Your task to perform on an android device: allow notifications from all sites in the chrome app Image 0: 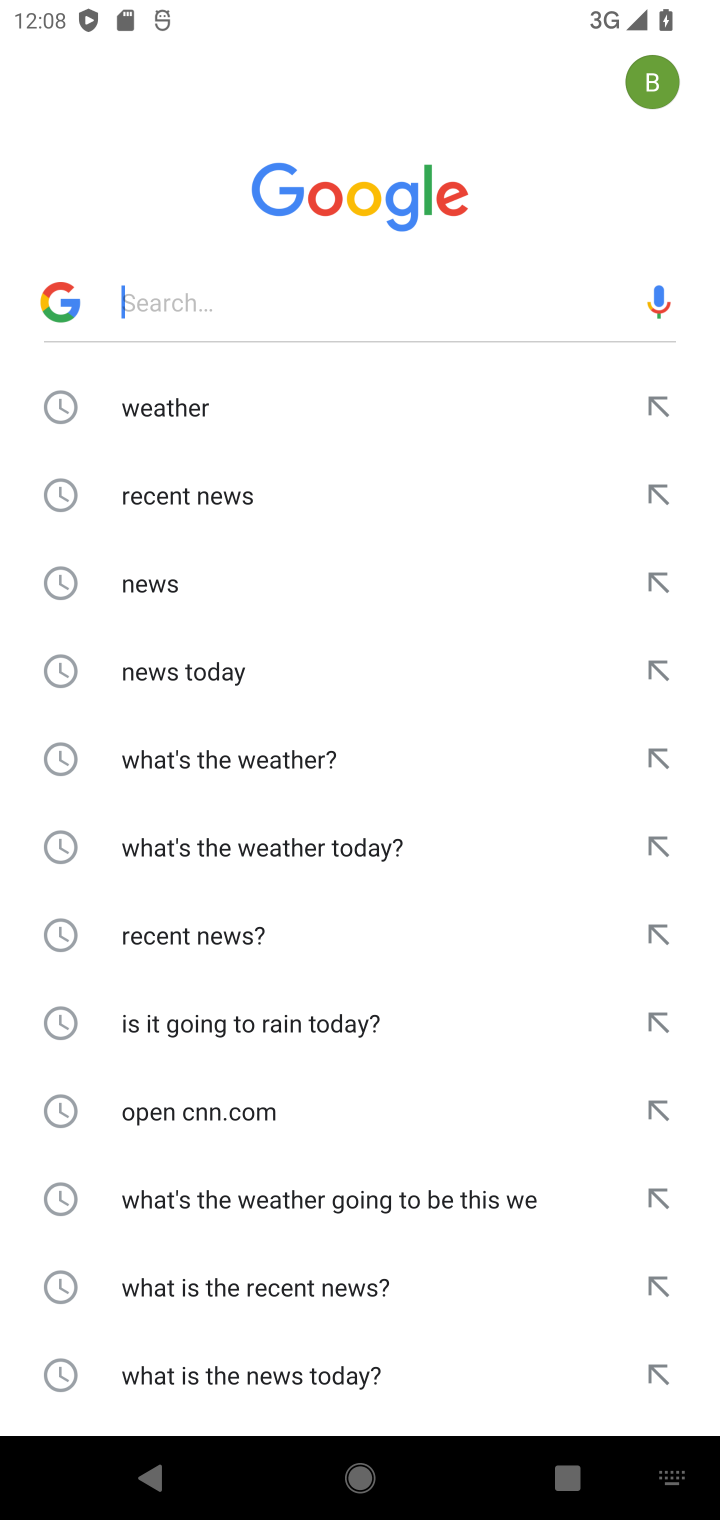
Step 0: press home button
Your task to perform on an android device: allow notifications from all sites in the chrome app Image 1: 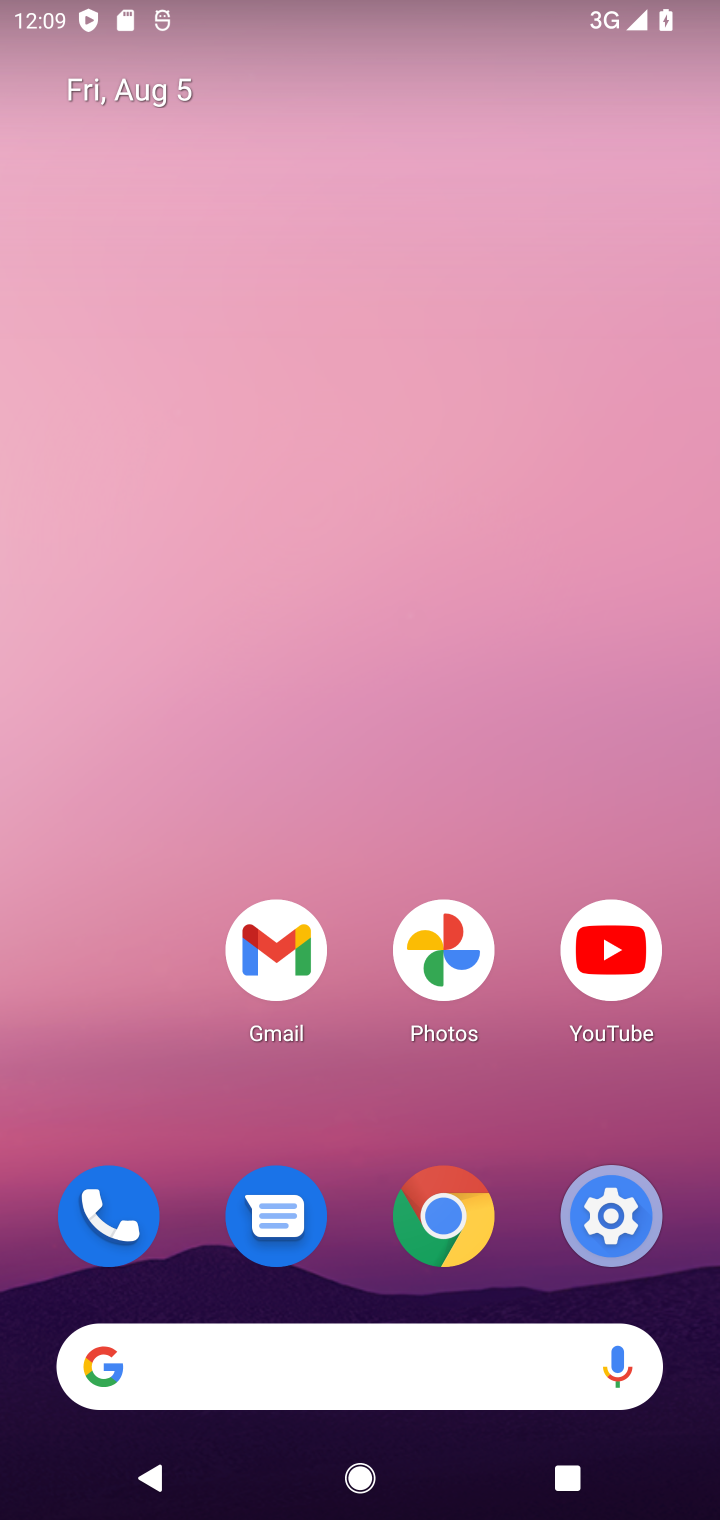
Step 1: drag from (460, 1332) to (448, 120)
Your task to perform on an android device: allow notifications from all sites in the chrome app Image 2: 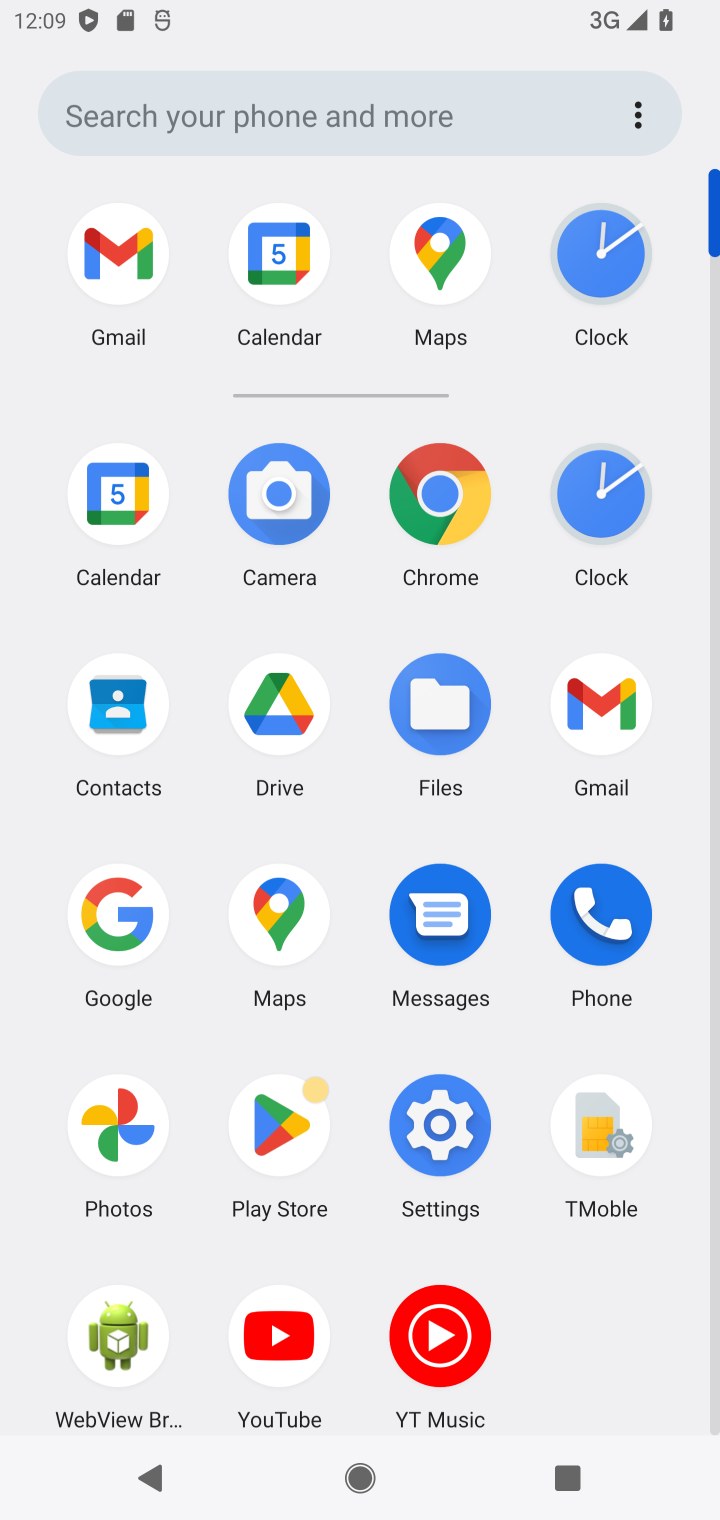
Step 2: click (458, 492)
Your task to perform on an android device: allow notifications from all sites in the chrome app Image 3: 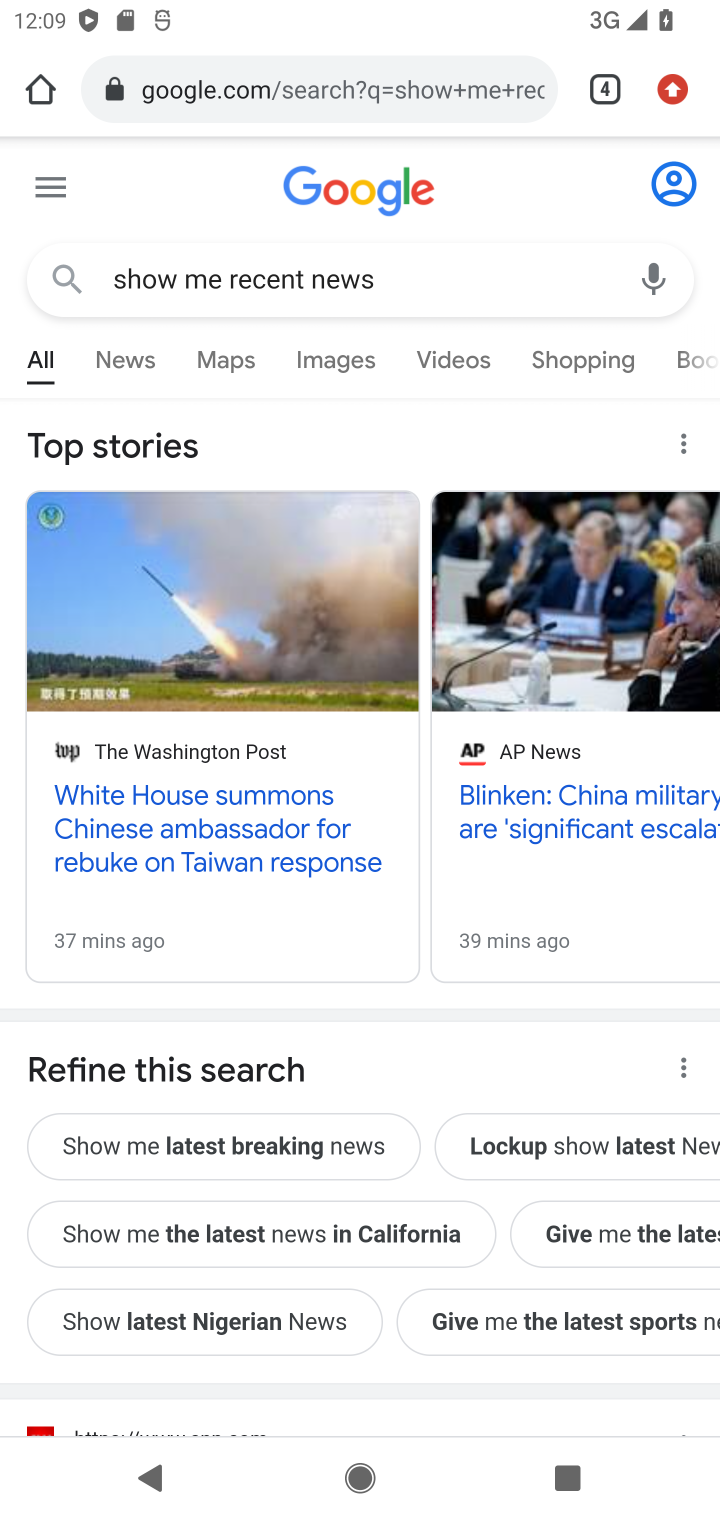
Step 3: click (670, 87)
Your task to perform on an android device: allow notifications from all sites in the chrome app Image 4: 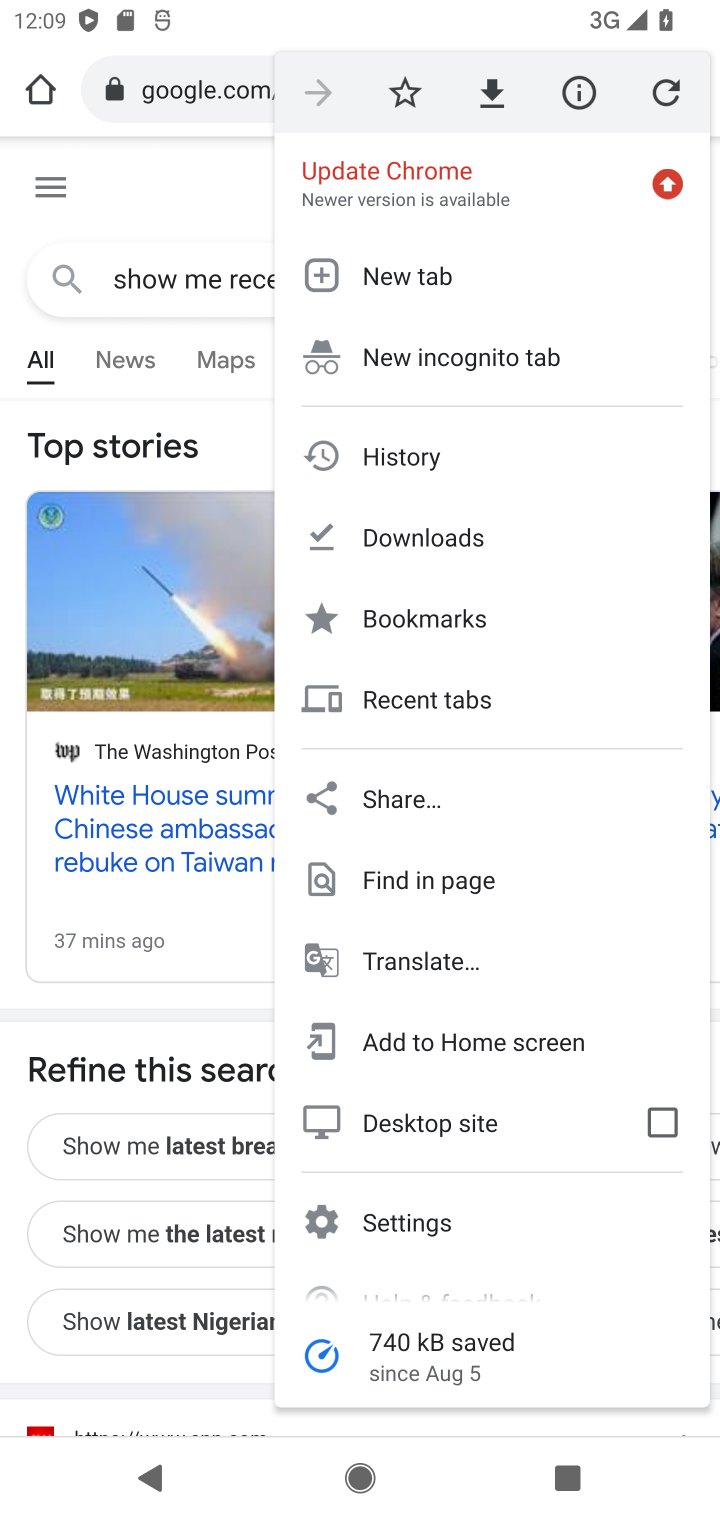
Step 4: click (409, 1218)
Your task to perform on an android device: allow notifications from all sites in the chrome app Image 5: 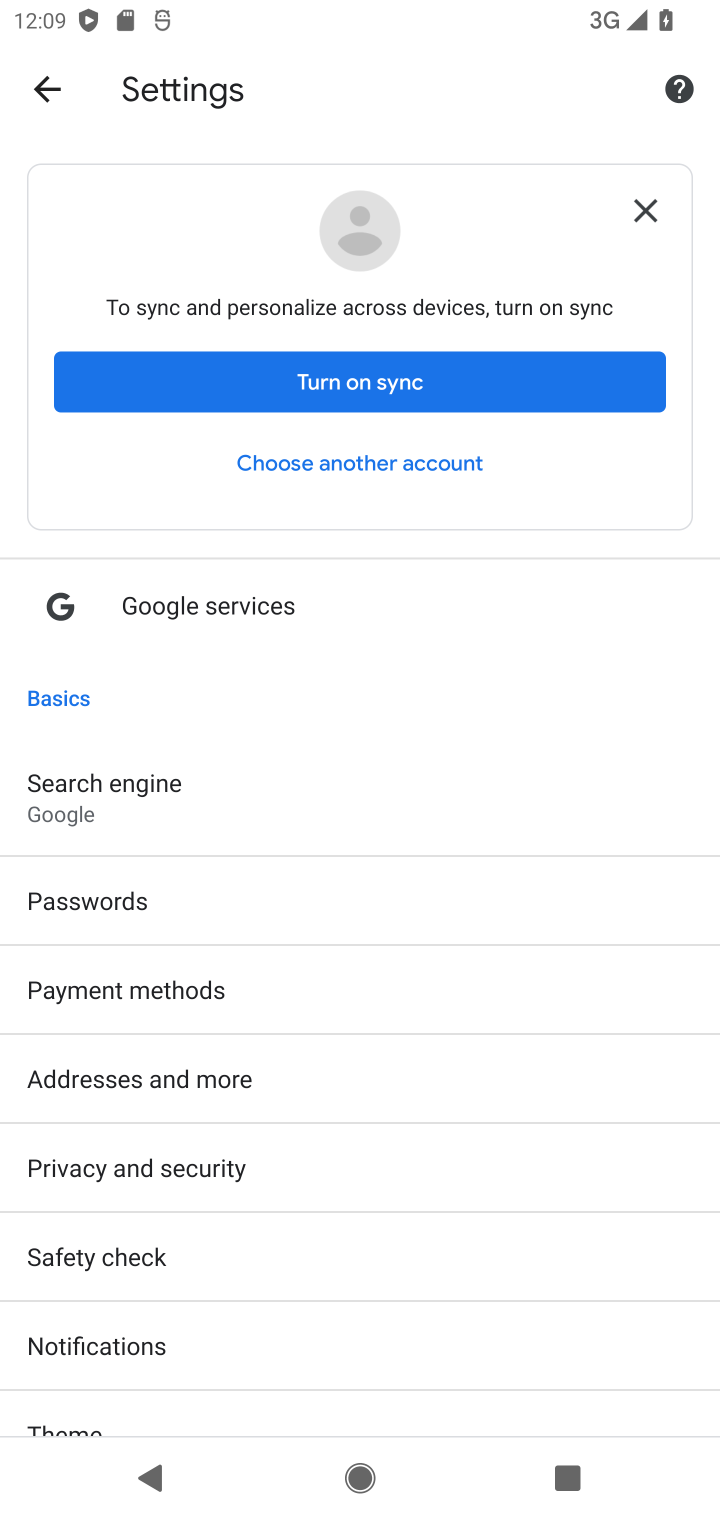
Step 5: click (217, 1338)
Your task to perform on an android device: allow notifications from all sites in the chrome app Image 6: 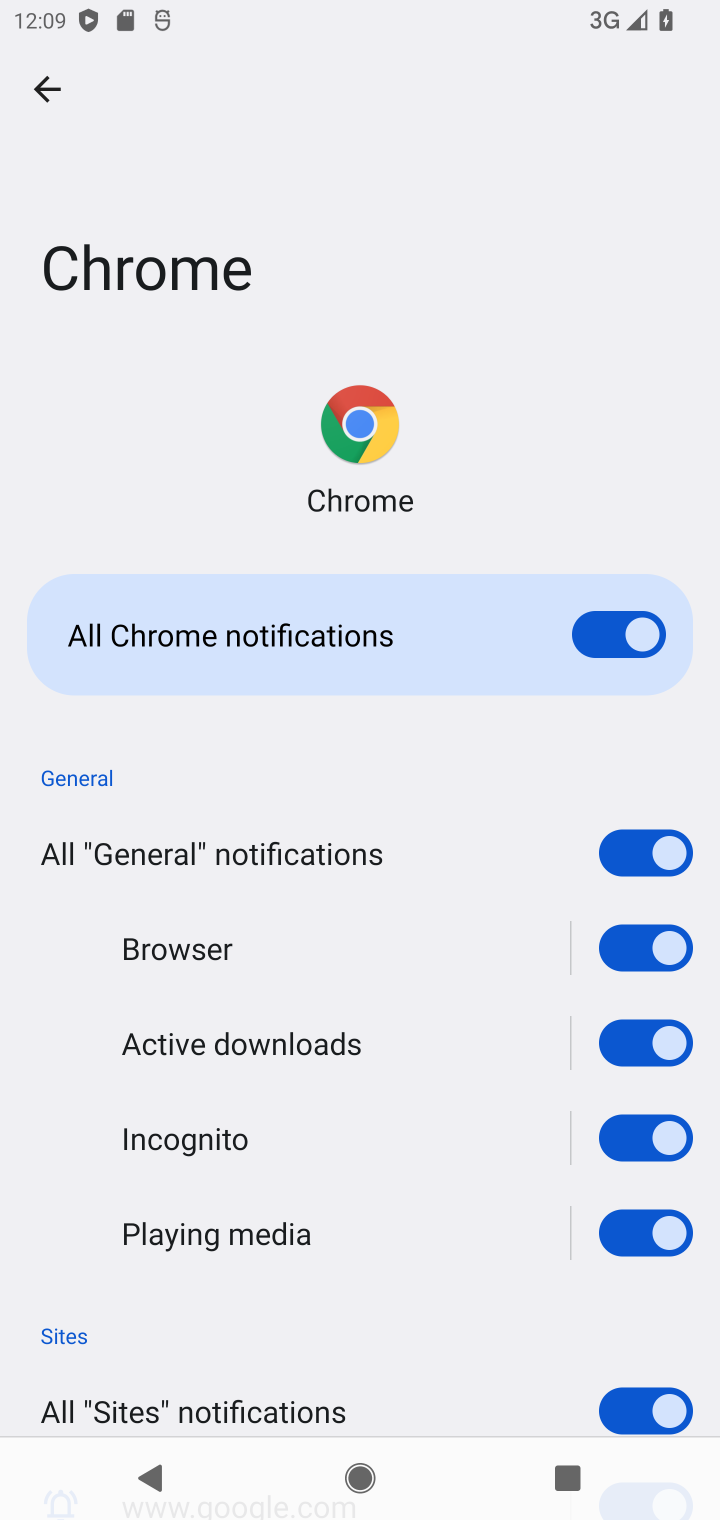
Step 6: task complete